Your task to perform on an android device: What is the news today? Image 0: 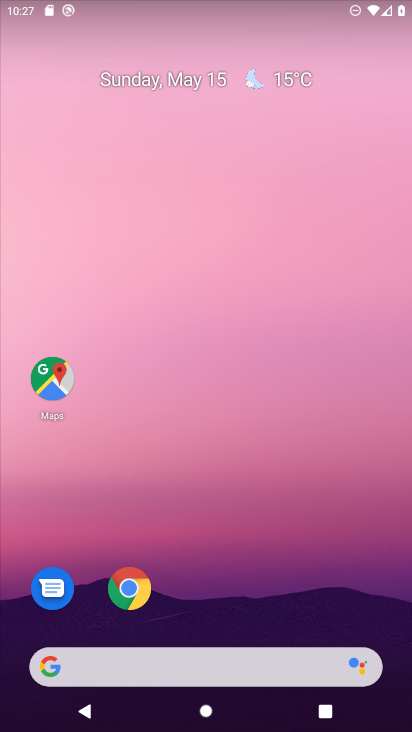
Step 0: drag from (258, 612) to (313, 196)
Your task to perform on an android device: What is the news today? Image 1: 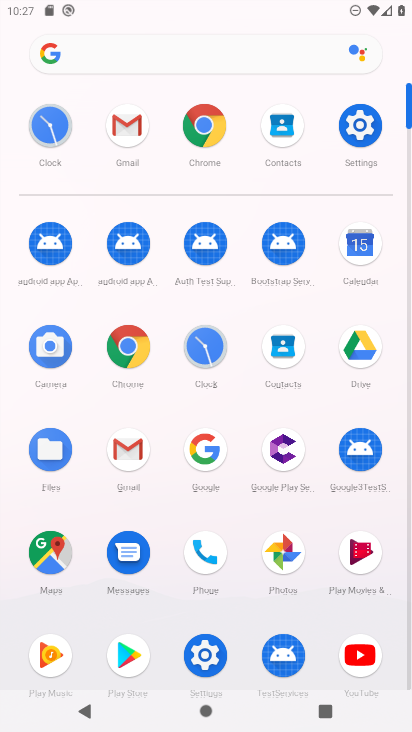
Step 1: click (204, 57)
Your task to perform on an android device: What is the news today? Image 2: 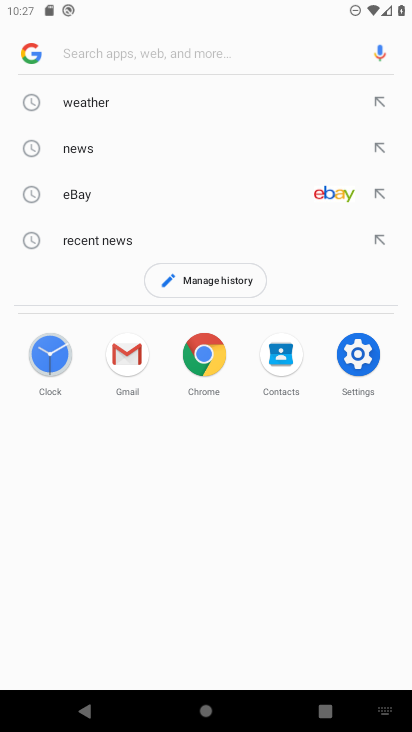
Step 2: type "news today"
Your task to perform on an android device: What is the news today? Image 3: 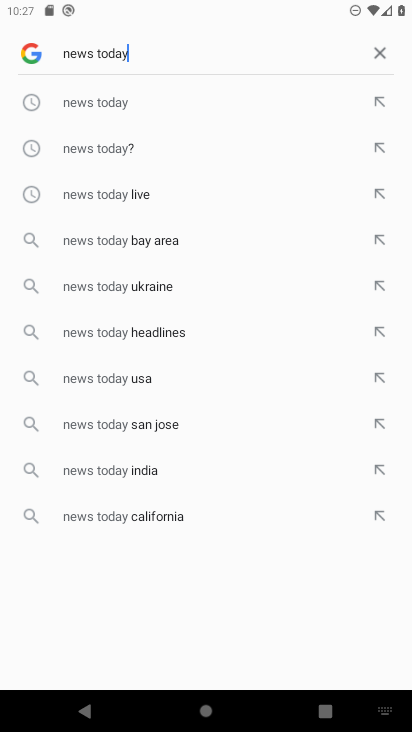
Step 3: click (141, 100)
Your task to perform on an android device: What is the news today? Image 4: 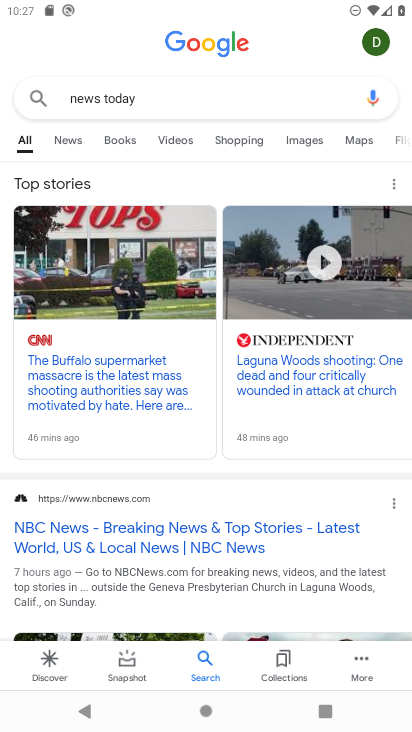
Step 4: task complete